Your task to perform on an android device: Go to Wikipedia Image 0: 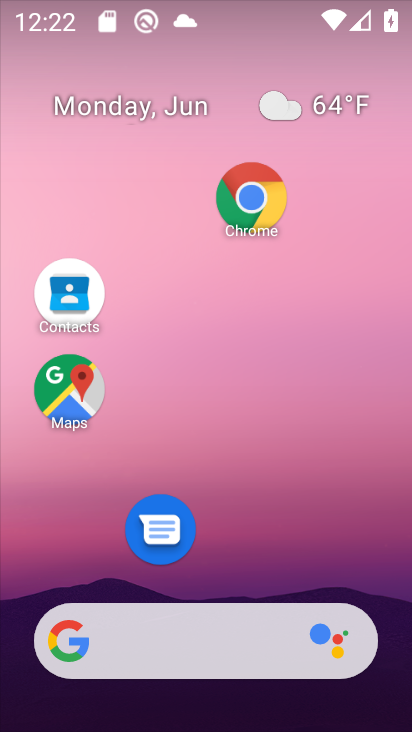
Step 0: click (257, 193)
Your task to perform on an android device: Go to Wikipedia Image 1: 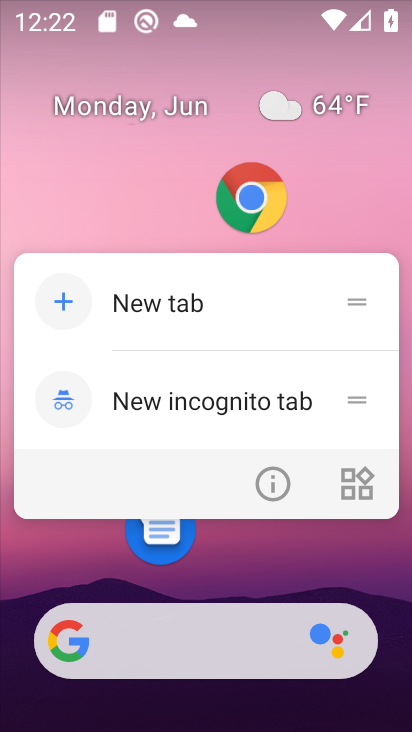
Step 1: click (257, 193)
Your task to perform on an android device: Go to Wikipedia Image 2: 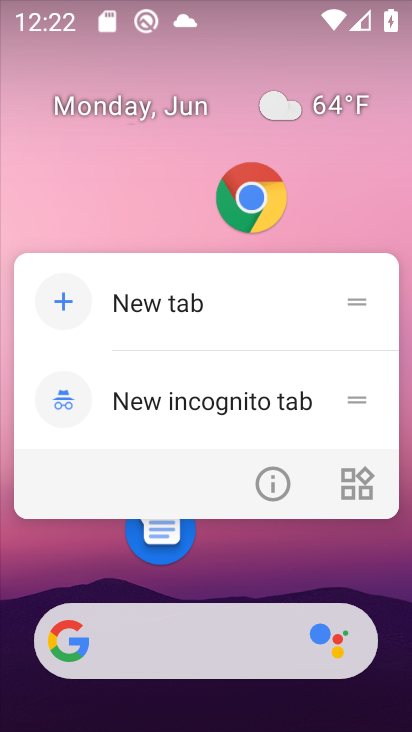
Step 2: click (250, 196)
Your task to perform on an android device: Go to Wikipedia Image 3: 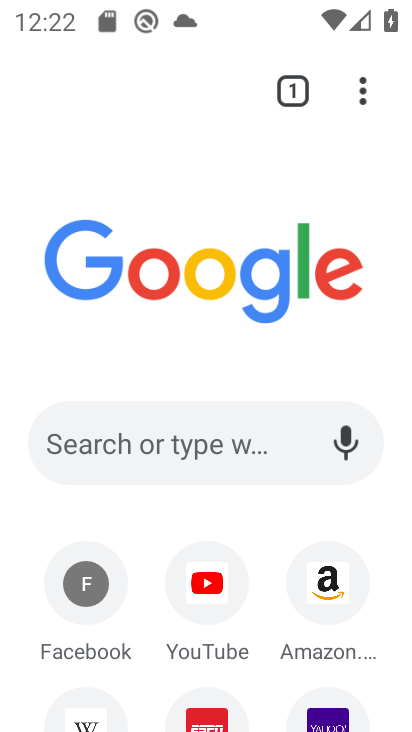
Step 3: click (97, 711)
Your task to perform on an android device: Go to Wikipedia Image 4: 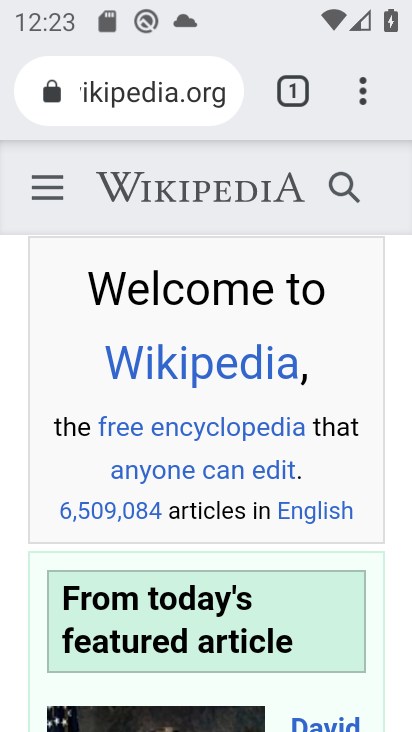
Step 4: task complete